Your task to perform on an android device: turn off translation in the chrome app Image 0: 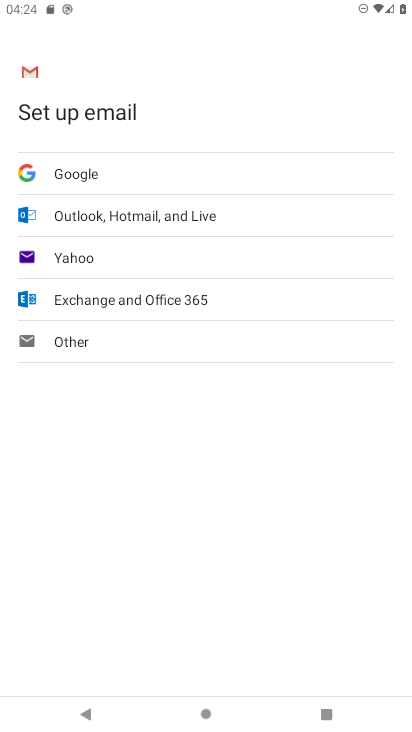
Step 0: press home button
Your task to perform on an android device: turn off translation in the chrome app Image 1: 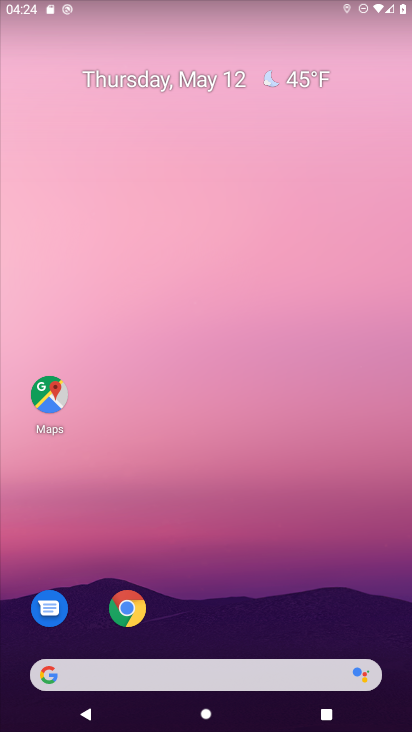
Step 1: drag from (234, 605) to (215, 84)
Your task to perform on an android device: turn off translation in the chrome app Image 2: 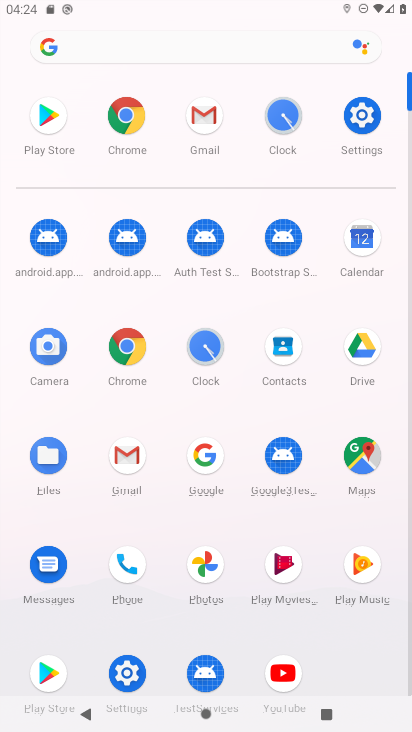
Step 2: click (356, 135)
Your task to perform on an android device: turn off translation in the chrome app Image 3: 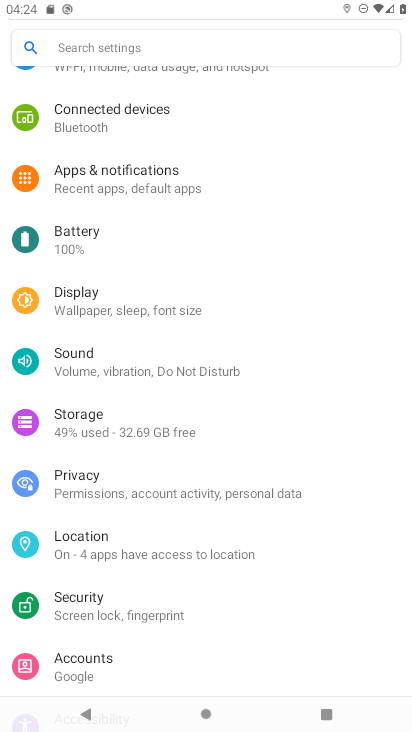
Step 3: press home button
Your task to perform on an android device: turn off translation in the chrome app Image 4: 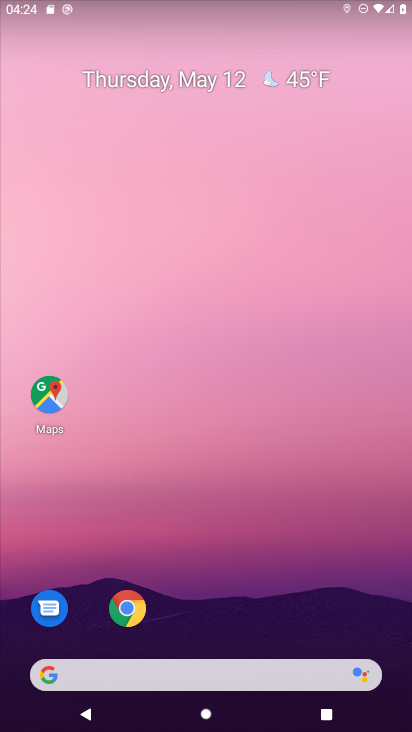
Step 4: click (141, 607)
Your task to perform on an android device: turn off translation in the chrome app Image 5: 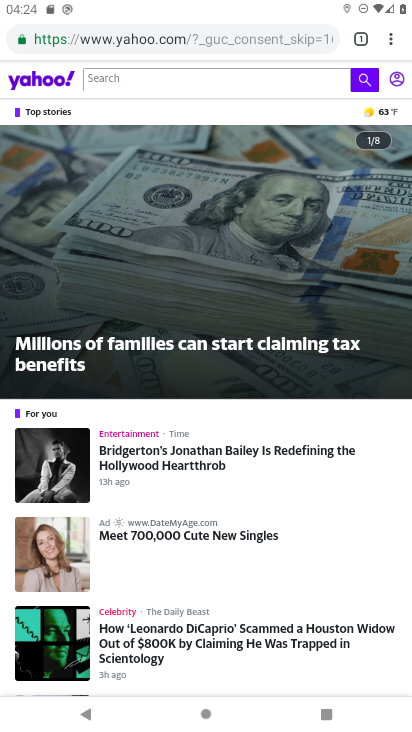
Step 5: click (398, 46)
Your task to perform on an android device: turn off translation in the chrome app Image 6: 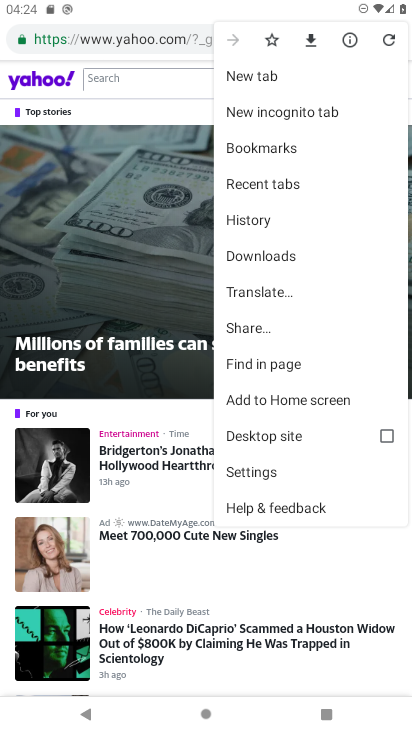
Step 6: click (276, 469)
Your task to perform on an android device: turn off translation in the chrome app Image 7: 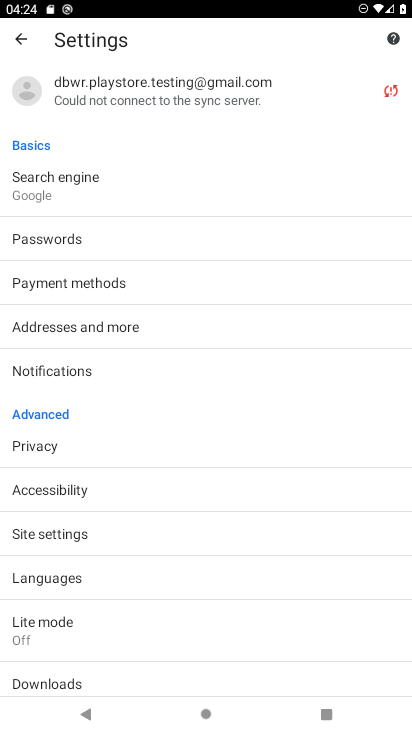
Step 7: click (147, 587)
Your task to perform on an android device: turn off translation in the chrome app Image 8: 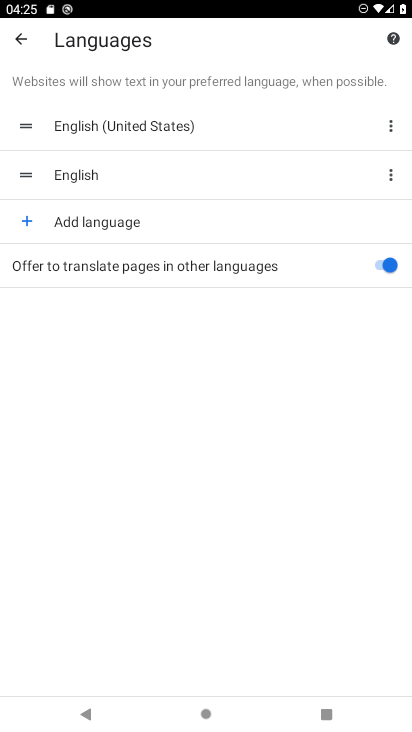
Step 8: click (346, 265)
Your task to perform on an android device: turn off translation in the chrome app Image 9: 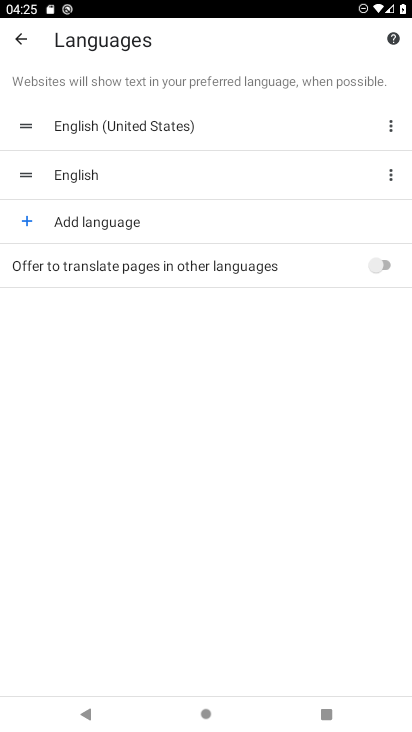
Step 9: task complete